Your task to perform on an android device: Search for vegetarian restaurants on Maps Image 0: 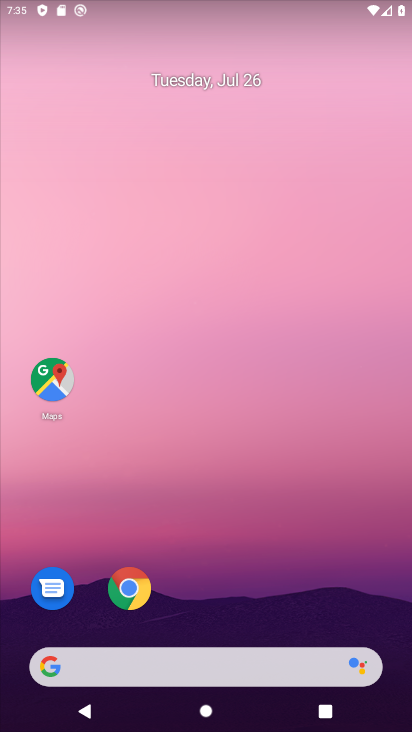
Step 0: click (50, 386)
Your task to perform on an android device: Search for vegetarian restaurants on Maps Image 1: 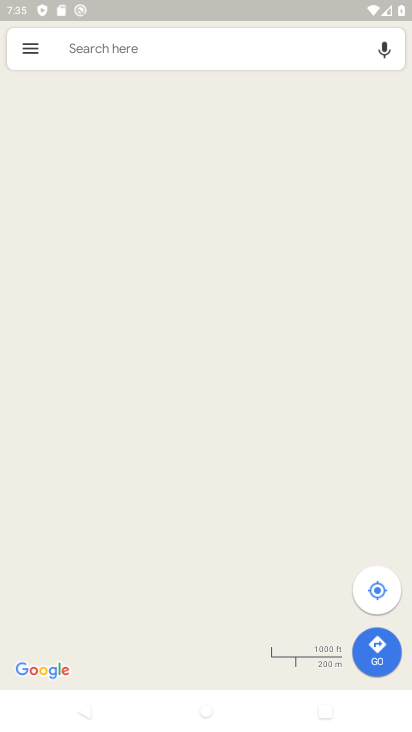
Step 1: click (193, 50)
Your task to perform on an android device: Search for vegetarian restaurants on Maps Image 2: 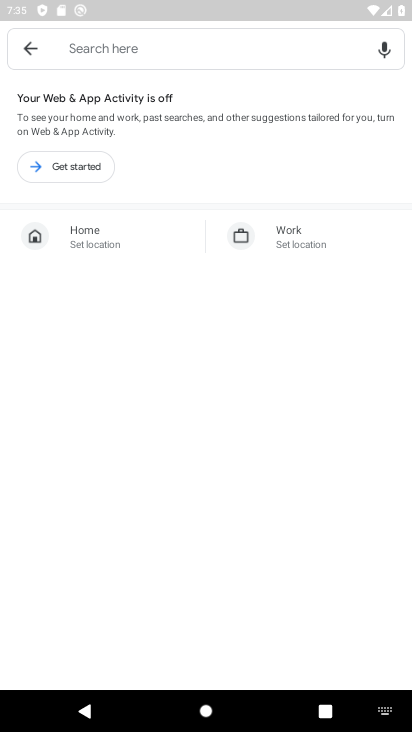
Step 2: type "vegetarian restaurants "
Your task to perform on an android device: Search for vegetarian restaurants on Maps Image 3: 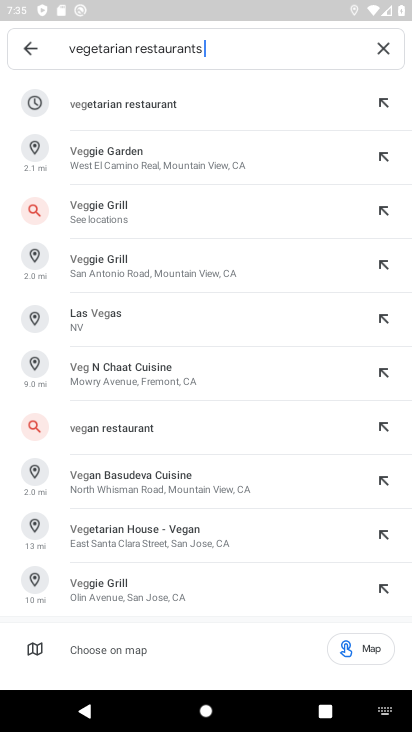
Step 3: press enter
Your task to perform on an android device: Search for vegetarian restaurants on Maps Image 4: 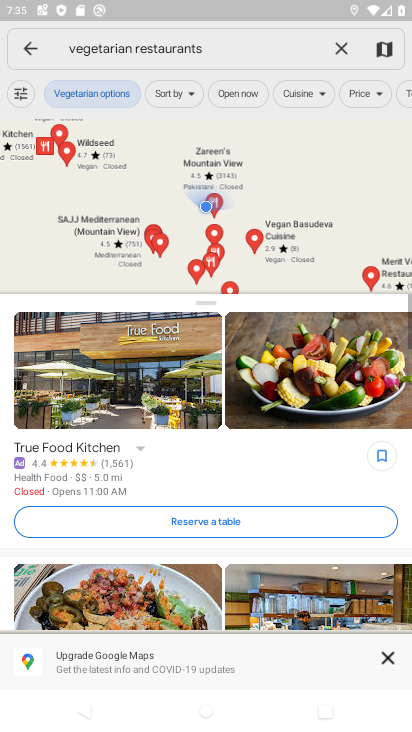
Step 4: task complete